Your task to perform on an android device: How much does a 2 bedroom apartment rent for in Denver? Image 0: 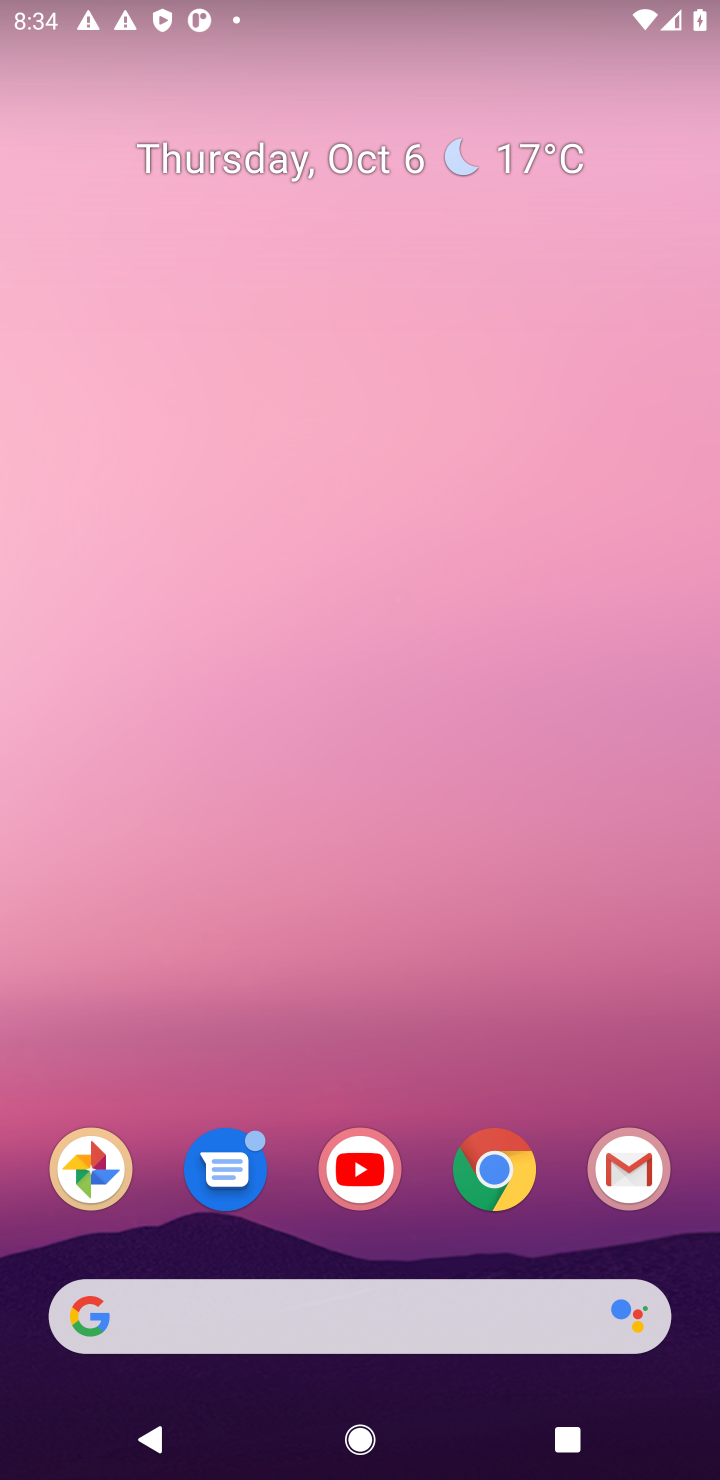
Step 0: drag from (371, 1064) to (523, 249)
Your task to perform on an android device: How much does a 2 bedroom apartment rent for in Denver? Image 1: 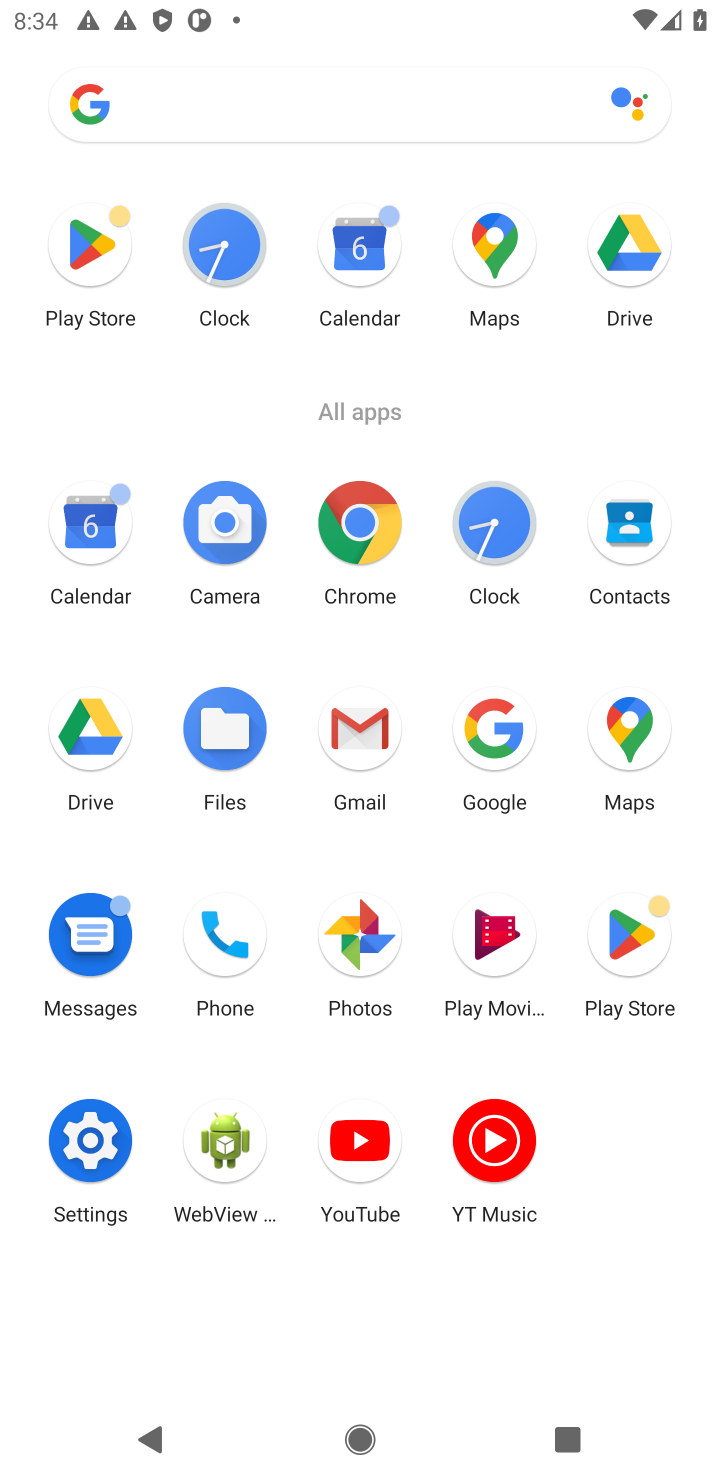
Step 1: click (488, 749)
Your task to perform on an android device: How much does a 2 bedroom apartment rent for in Denver? Image 2: 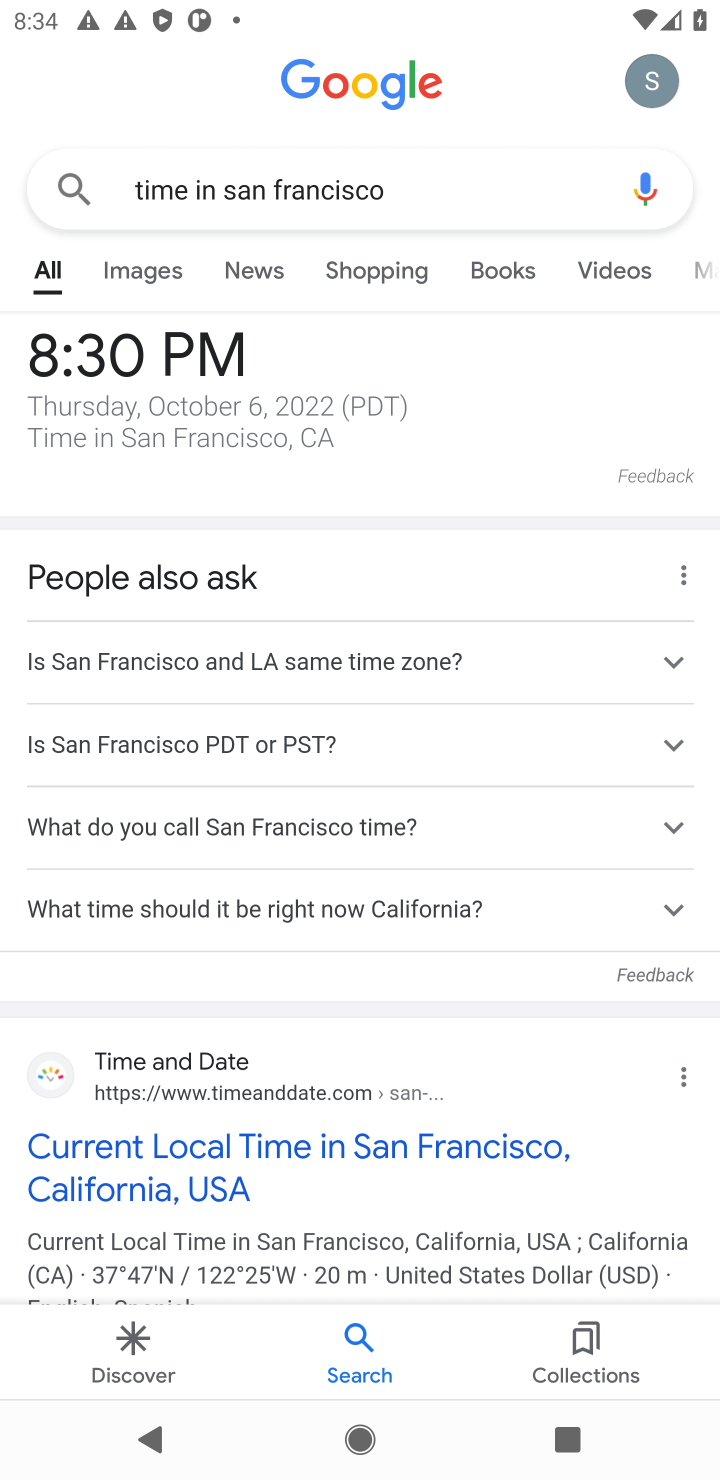
Step 2: click (442, 194)
Your task to perform on an android device: How much does a 2 bedroom apartment rent for in Denver? Image 3: 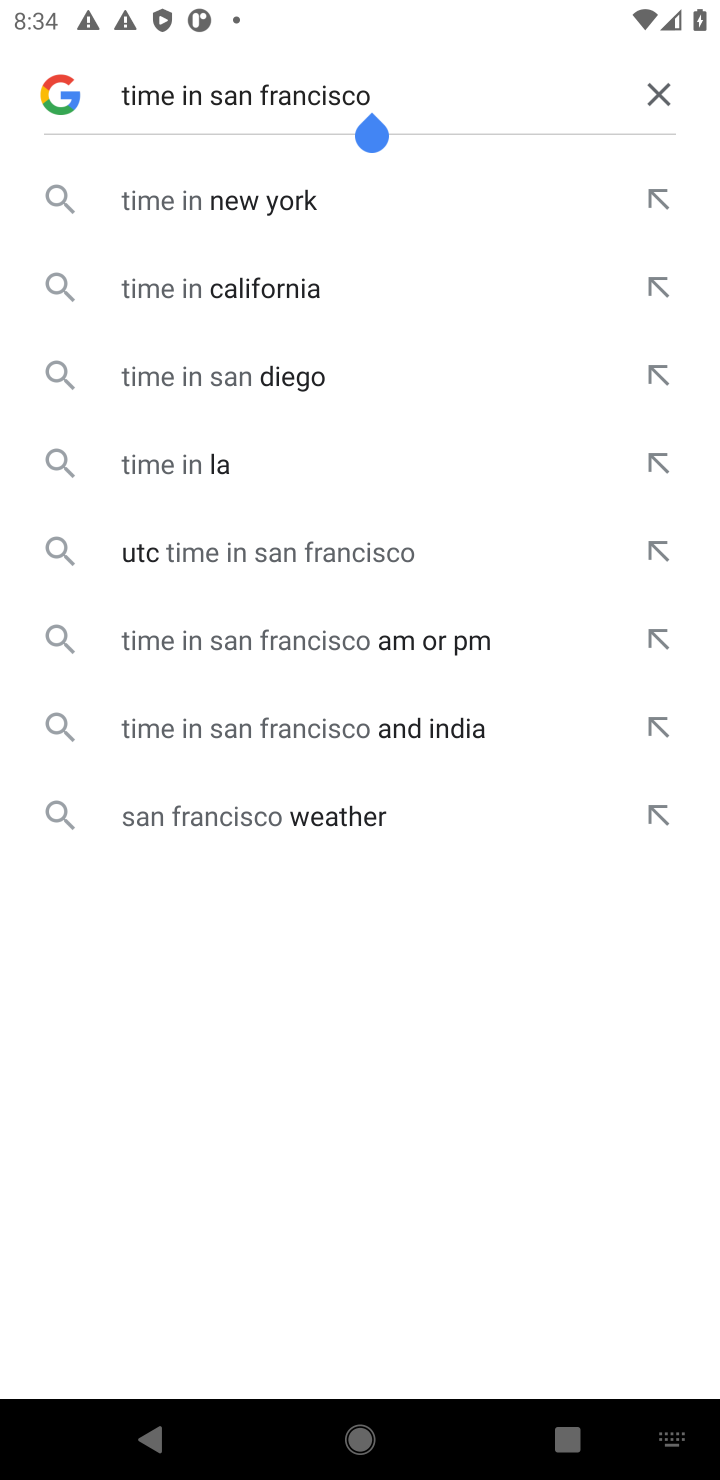
Step 3: click (647, 89)
Your task to perform on an android device: How much does a 2 bedroom apartment rent for in Denver? Image 4: 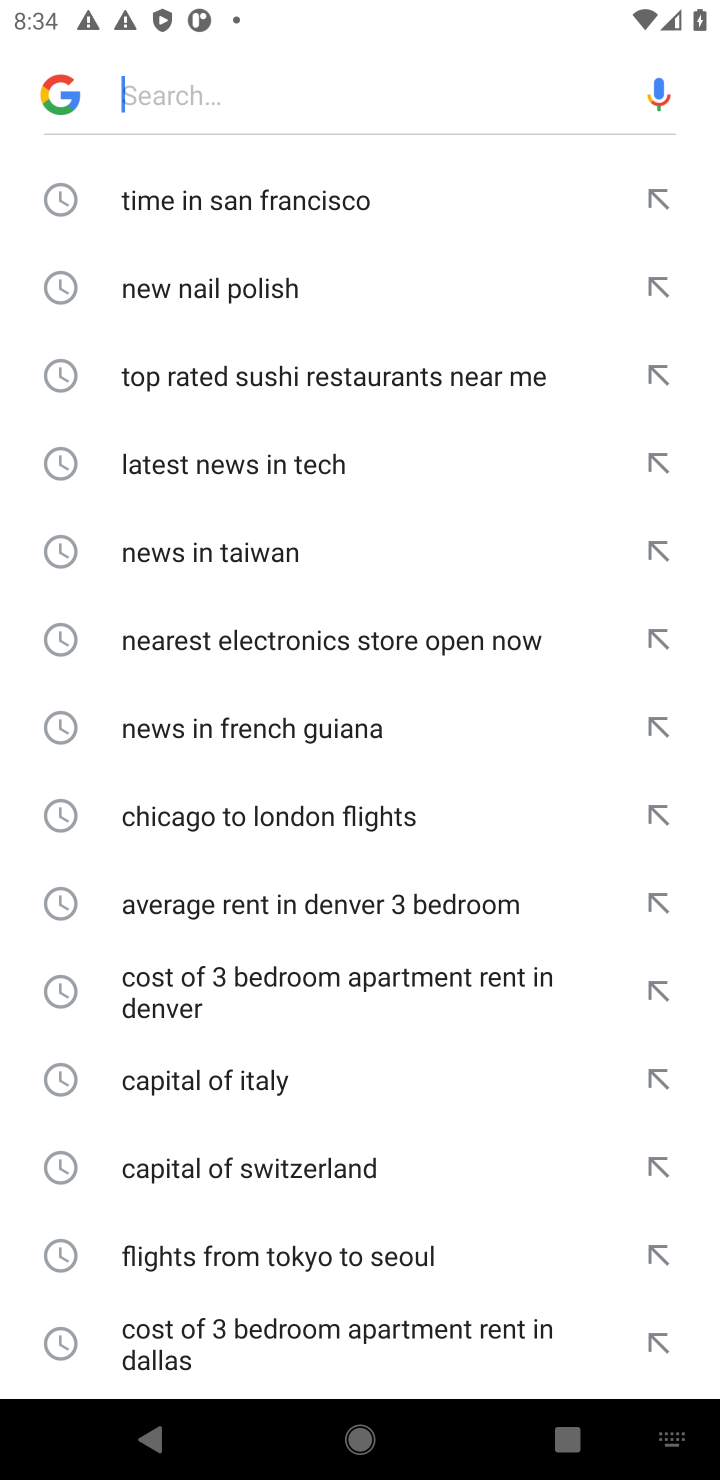
Step 4: click (210, 100)
Your task to perform on an android device: How much does a 2 bedroom apartment rent for in Denver? Image 5: 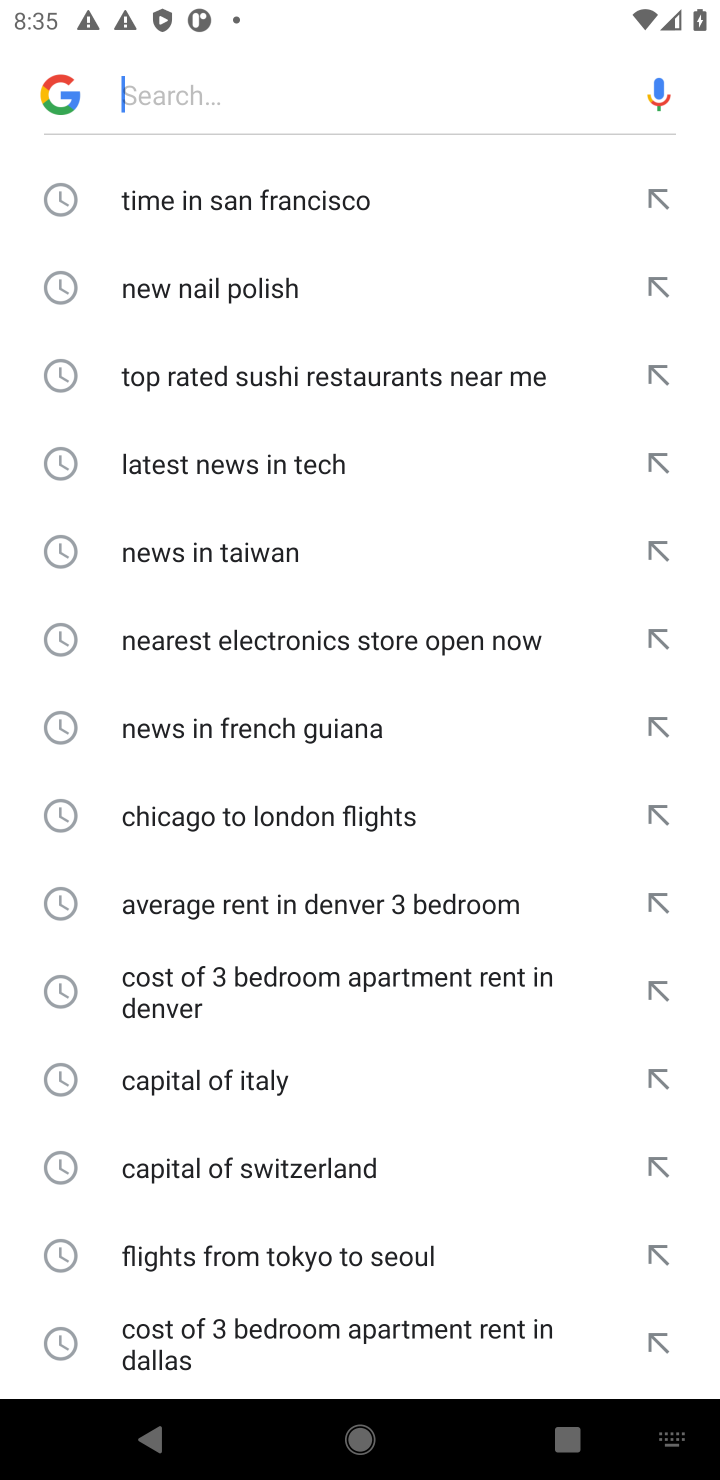
Step 5: type "How much does a 2 bedroom apartment rent for in Denver"
Your task to perform on an android device: How much does a 2 bedroom apartment rent for in Denver? Image 6: 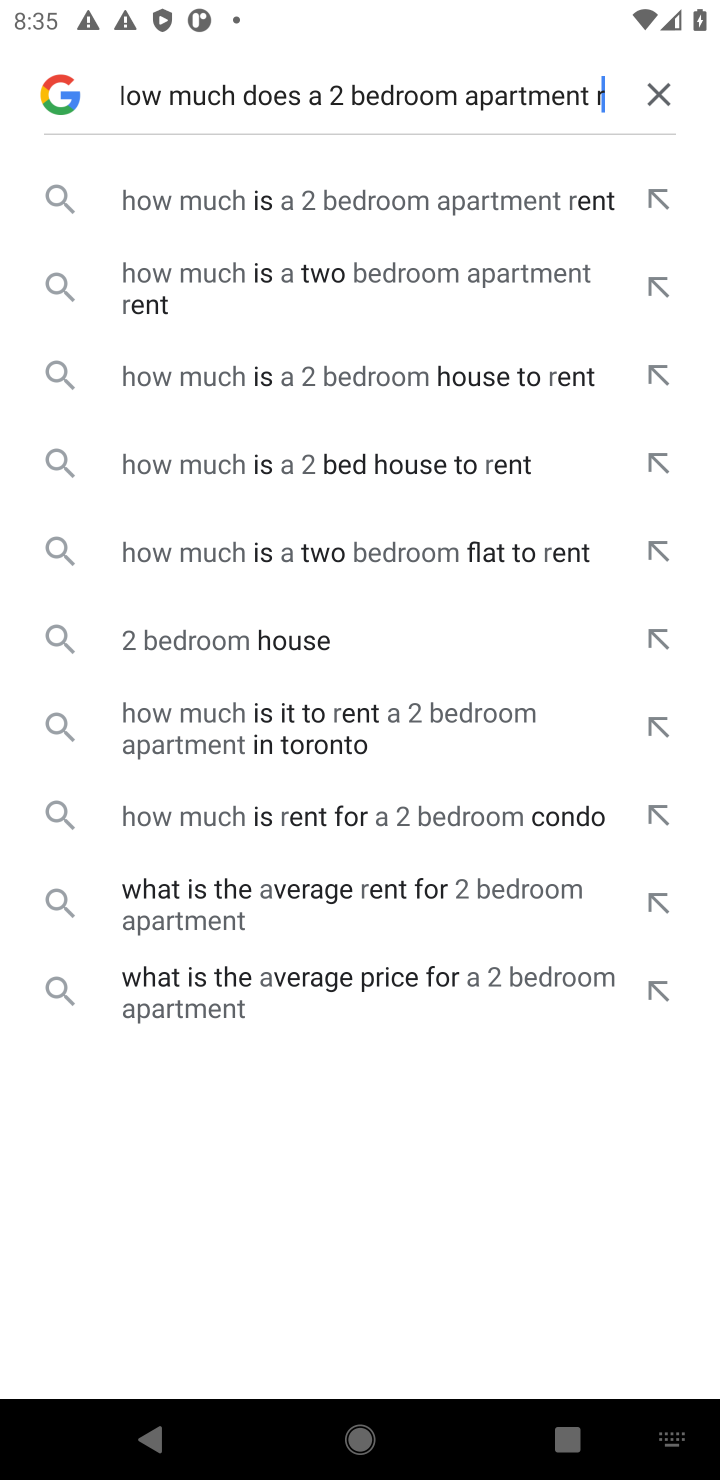
Step 6: click (232, 191)
Your task to perform on an android device: How much does a 2 bedroom apartment rent for in Denver? Image 7: 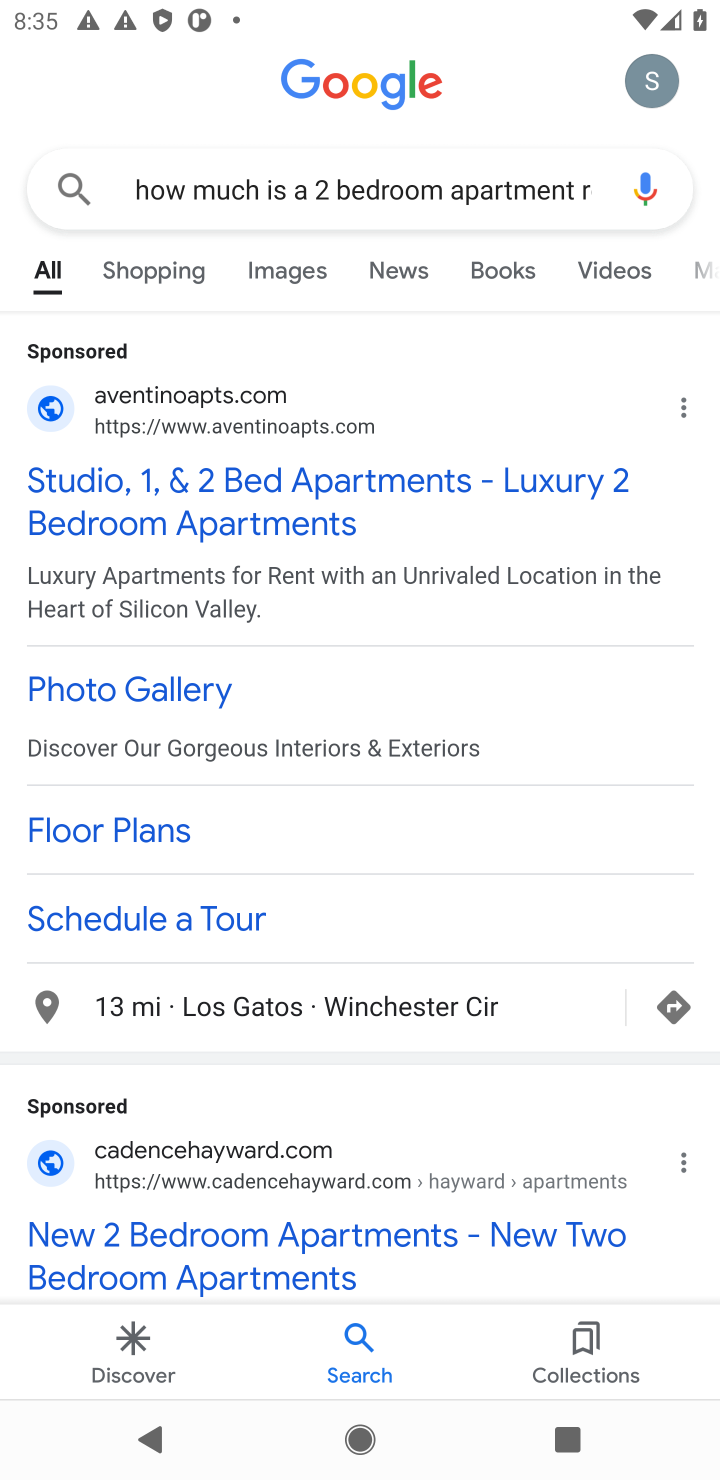
Step 7: click (306, 479)
Your task to perform on an android device: How much does a 2 bedroom apartment rent for in Denver? Image 8: 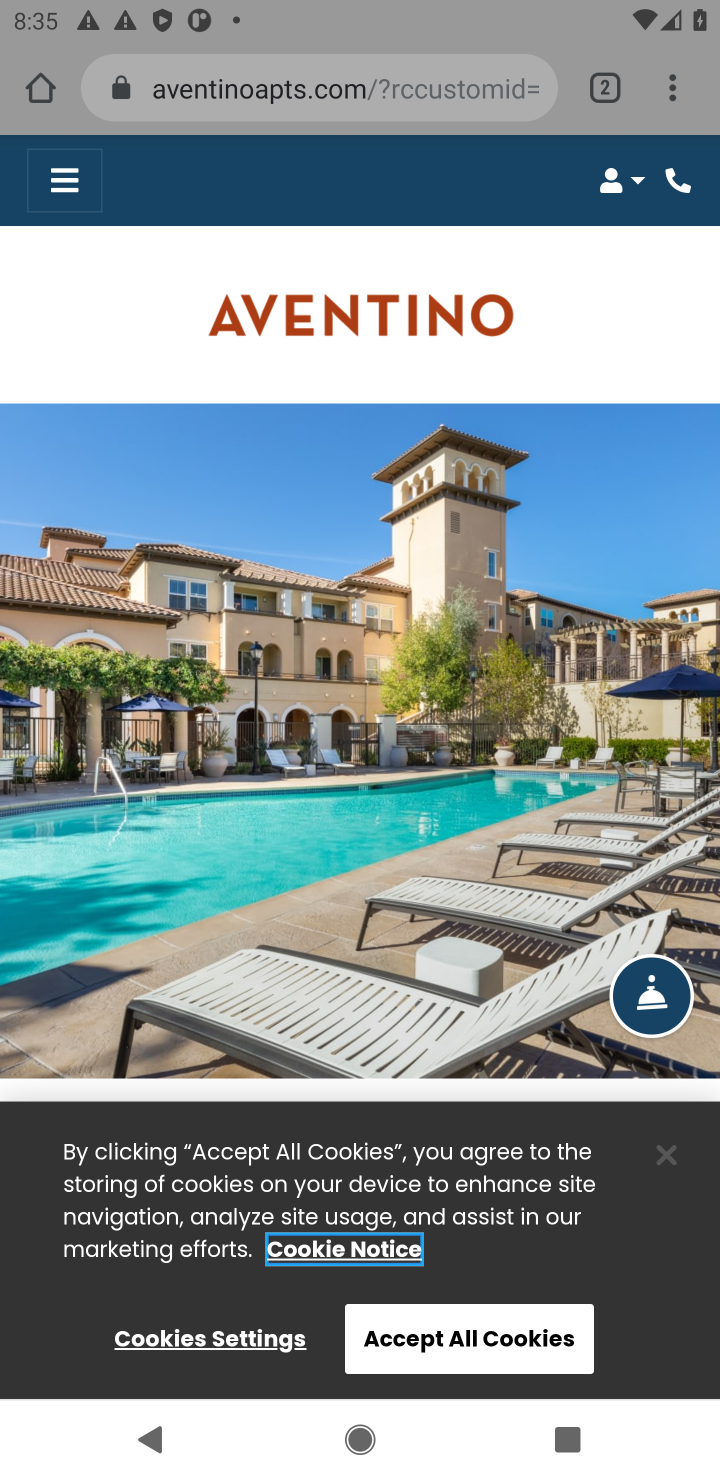
Step 8: task complete